Your task to perform on an android device: Search for logitech g910 on walmart, select the first entry, add it to the cart, then select checkout. Image 0: 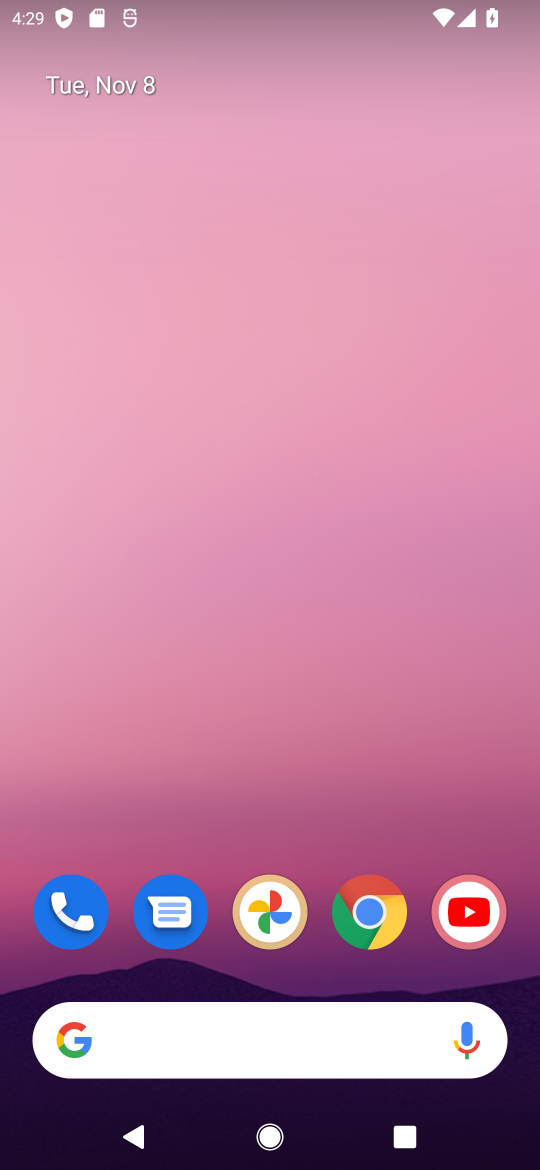
Step 0: click (362, 916)
Your task to perform on an android device: Search for logitech g910 on walmart, select the first entry, add it to the cart, then select checkout. Image 1: 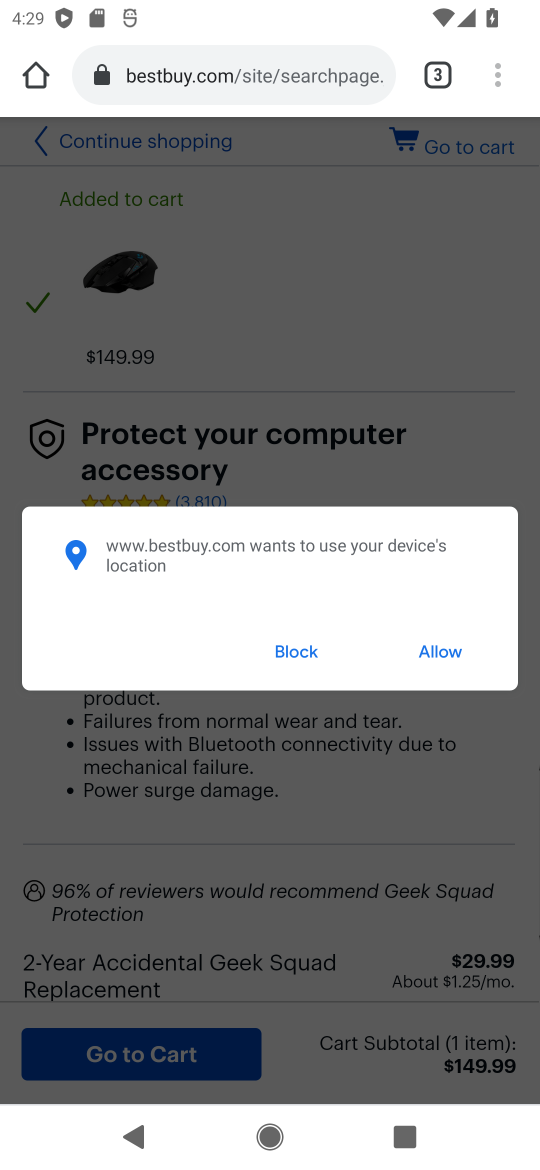
Step 1: click (286, 650)
Your task to perform on an android device: Search for logitech g910 on walmart, select the first entry, add it to the cart, then select checkout. Image 2: 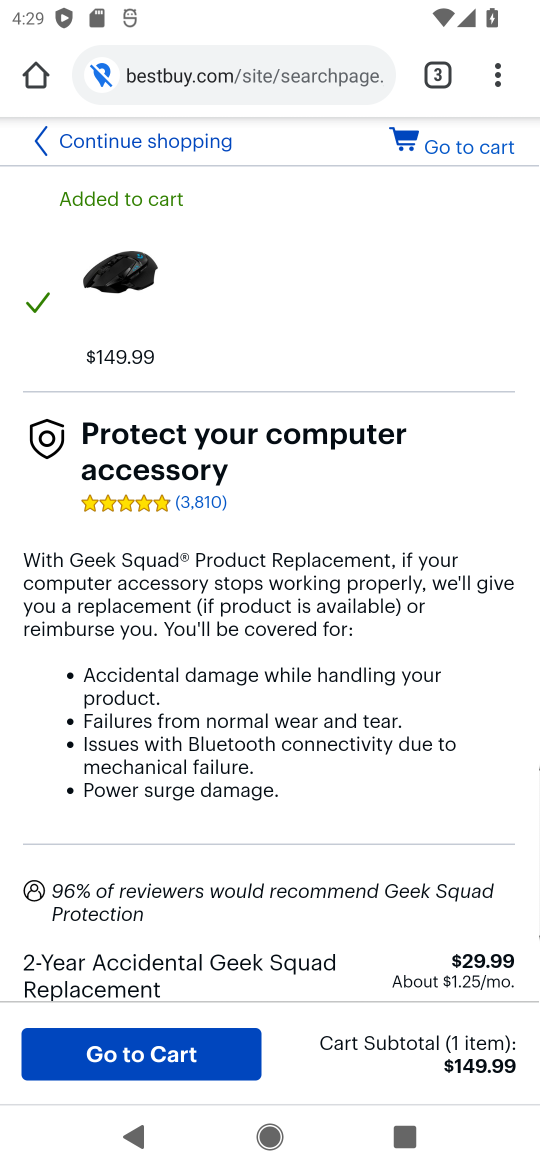
Step 2: click (433, 77)
Your task to perform on an android device: Search for logitech g910 on walmart, select the first entry, add it to the cart, then select checkout. Image 3: 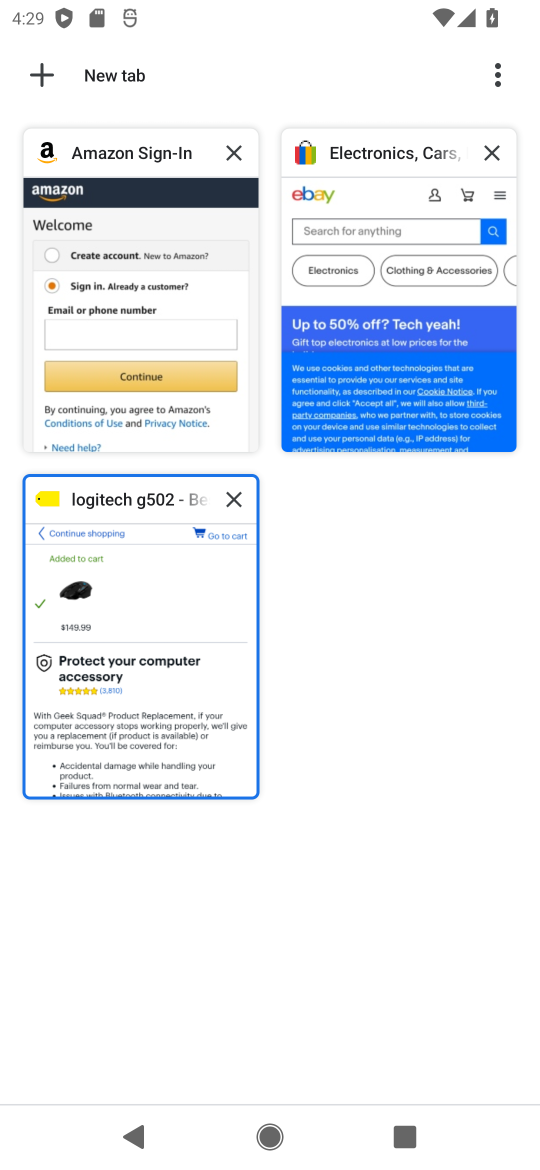
Step 3: click (49, 78)
Your task to perform on an android device: Search for logitech g910 on walmart, select the first entry, add it to the cart, then select checkout. Image 4: 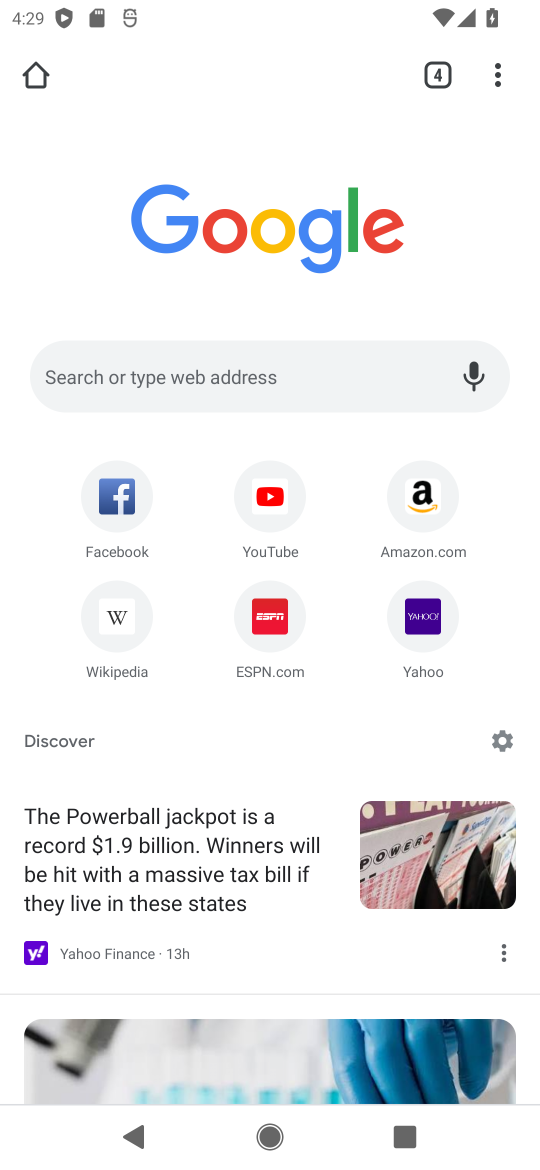
Step 4: click (202, 363)
Your task to perform on an android device: Search for logitech g910 on walmart, select the first entry, add it to the cart, then select checkout. Image 5: 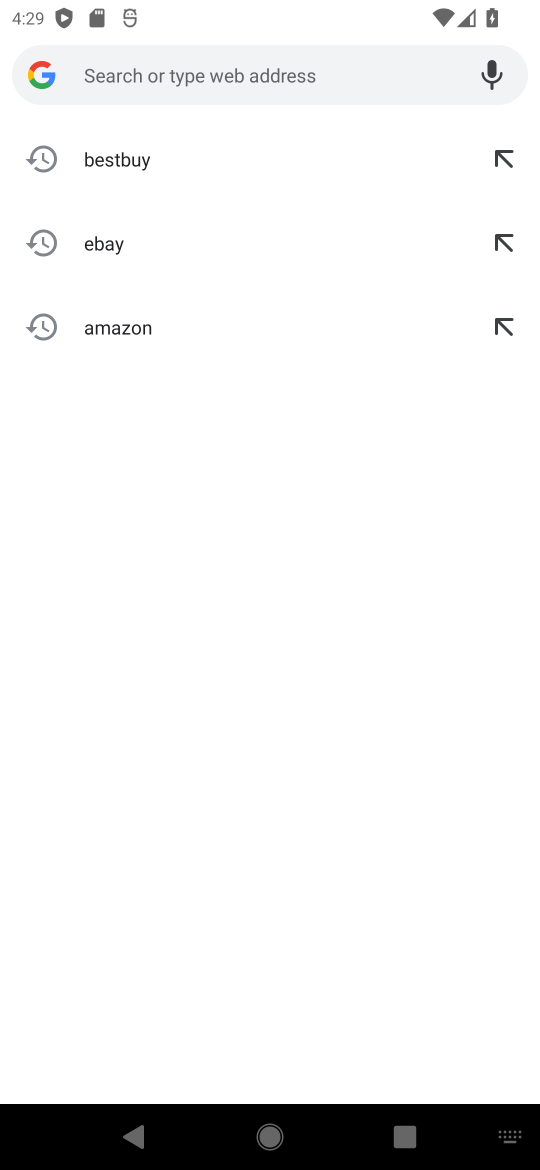
Step 5: type "walmart"
Your task to perform on an android device: Search for logitech g910 on walmart, select the first entry, add it to the cart, then select checkout. Image 6: 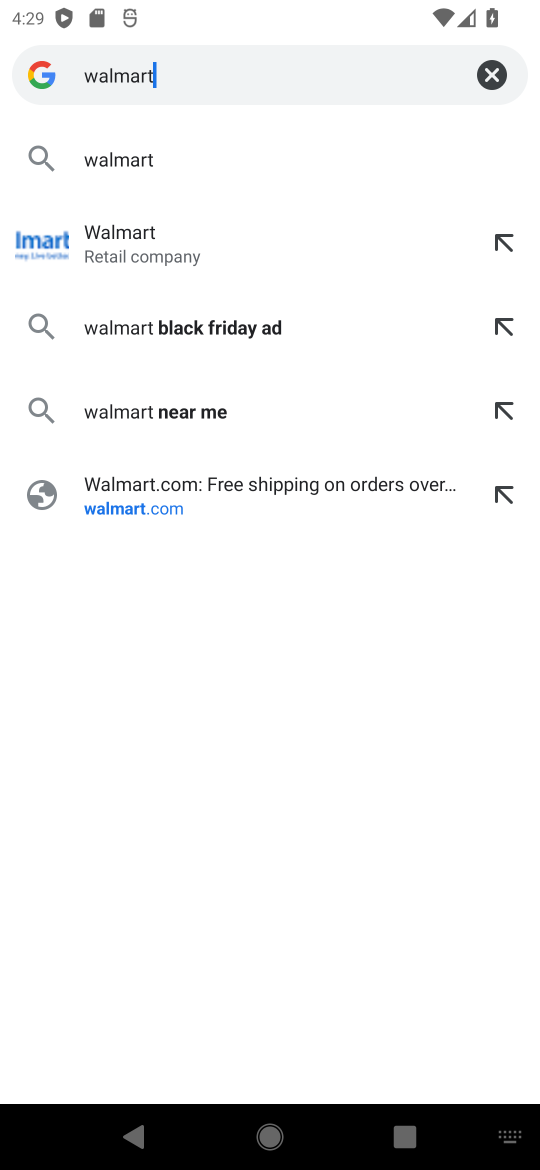
Step 6: click (171, 489)
Your task to perform on an android device: Search for logitech g910 on walmart, select the first entry, add it to the cart, then select checkout. Image 7: 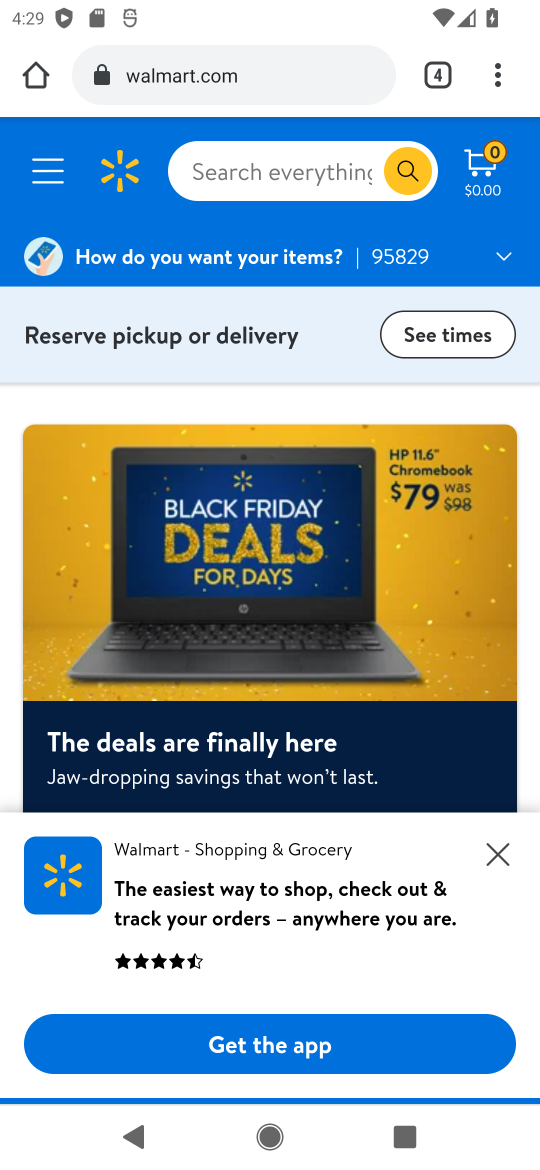
Step 7: click (234, 181)
Your task to perform on an android device: Search for logitech g910 on walmart, select the first entry, add it to the cart, then select checkout. Image 8: 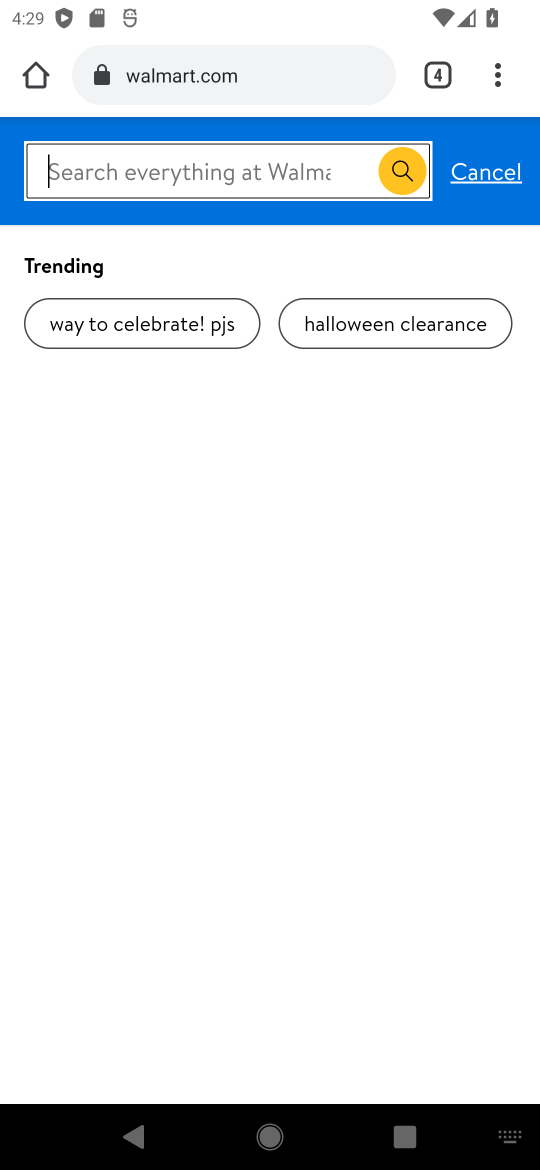
Step 8: type "logitech g910"
Your task to perform on an android device: Search for logitech g910 on walmart, select the first entry, add it to the cart, then select checkout. Image 9: 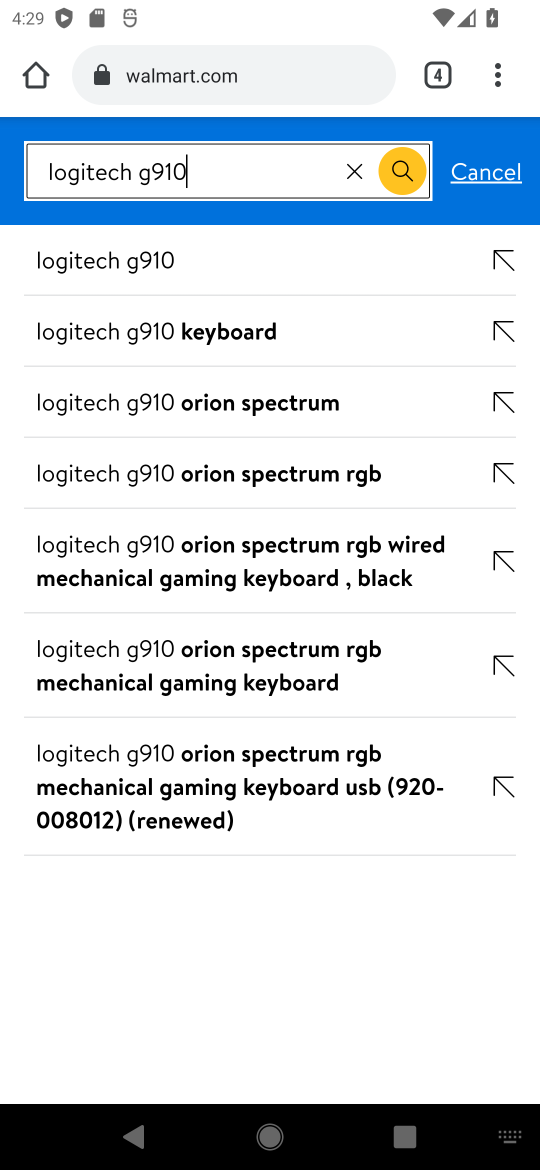
Step 9: click (49, 263)
Your task to perform on an android device: Search for logitech g910 on walmart, select the first entry, add it to the cart, then select checkout. Image 10: 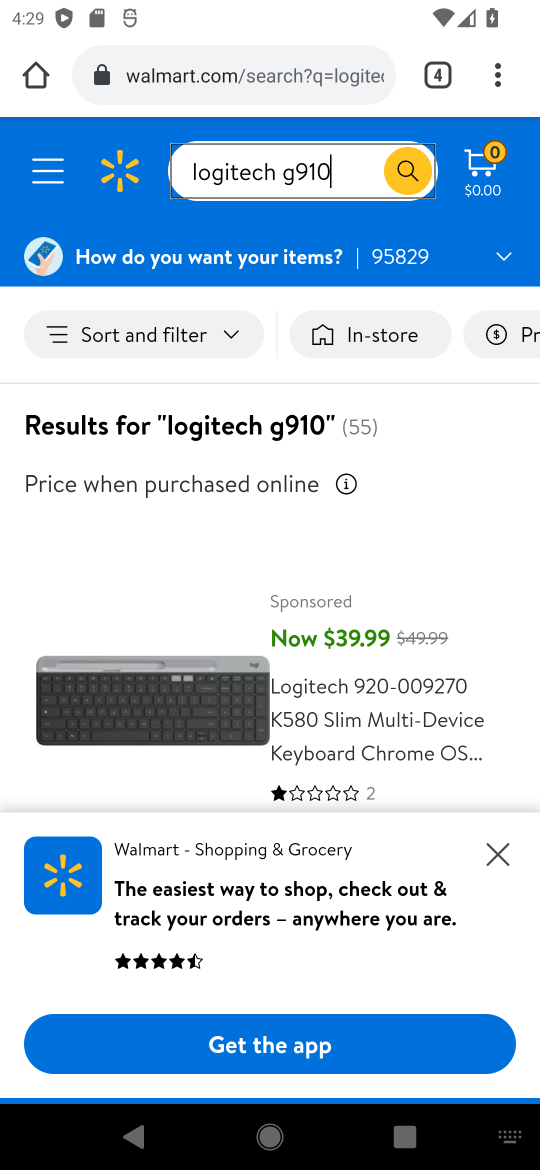
Step 10: click (493, 854)
Your task to perform on an android device: Search for logitech g910 on walmart, select the first entry, add it to the cart, then select checkout. Image 11: 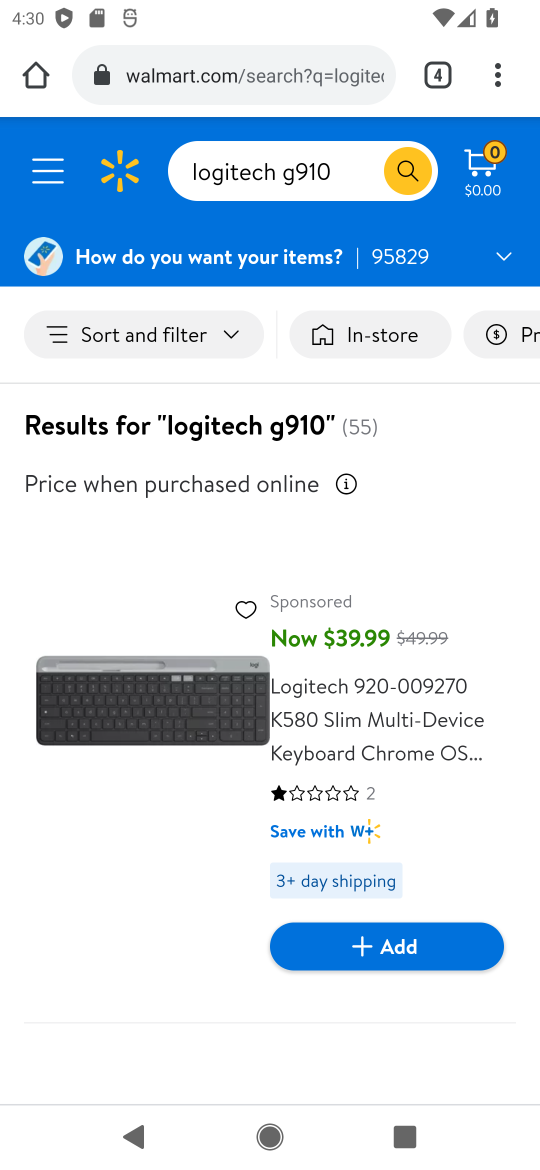
Step 11: click (379, 940)
Your task to perform on an android device: Search for logitech g910 on walmart, select the first entry, add it to the cart, then select checkout. Image 12: 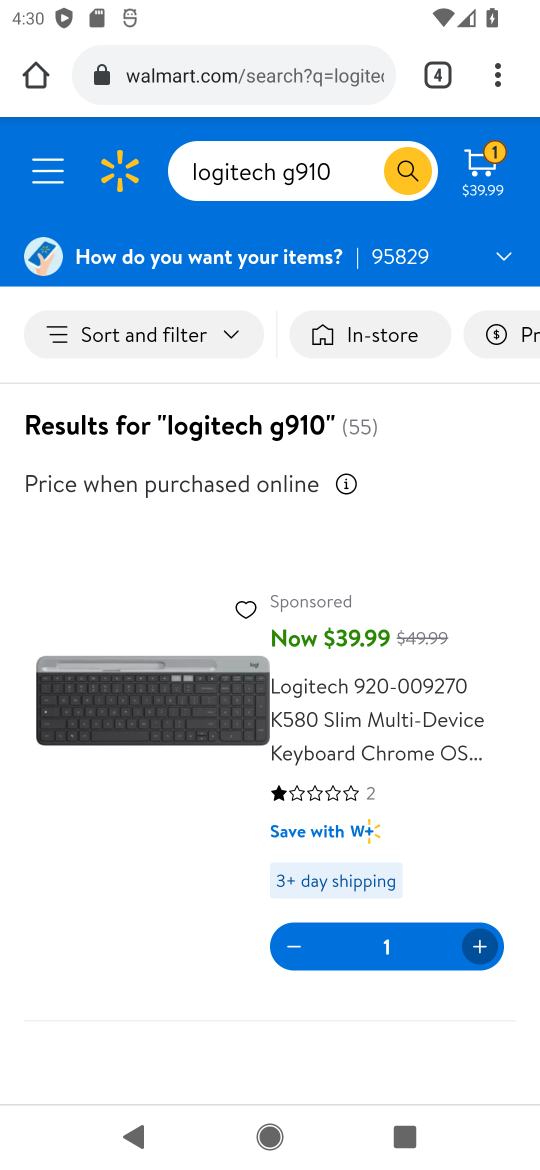
Step 12: click (475, 180)
Your task to perform on an android device: Search for logitech g910 on walmart, select the first entry, add it to the cart, then select checkout. Image 13: 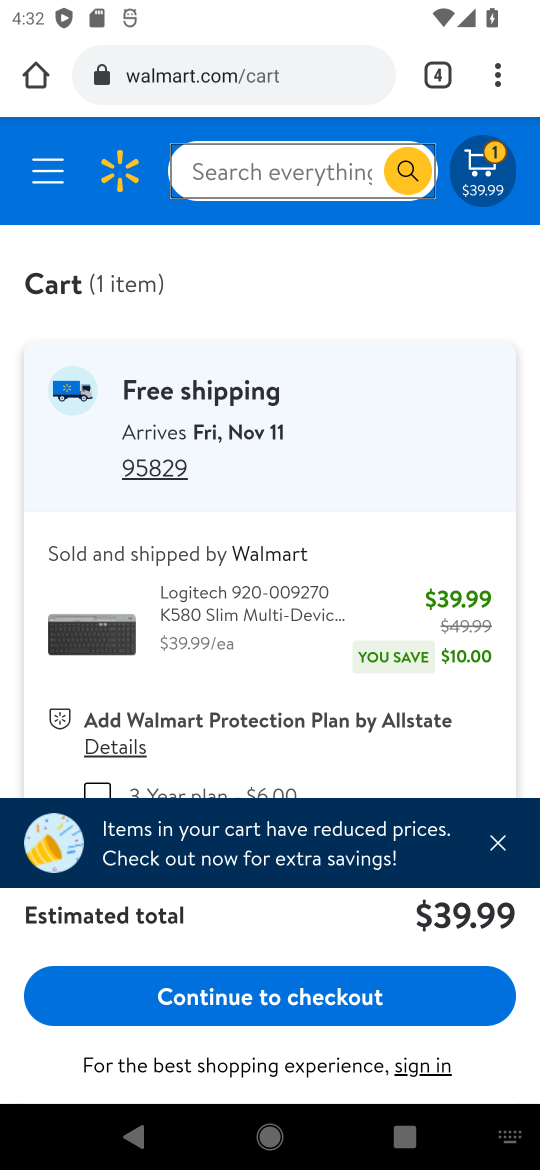
Step 13: click (259, 995)
Your task to perform on an android device: Search for logitech g910 on walmart, select the first entry, add it to the cart, then select checkout. Image 14: 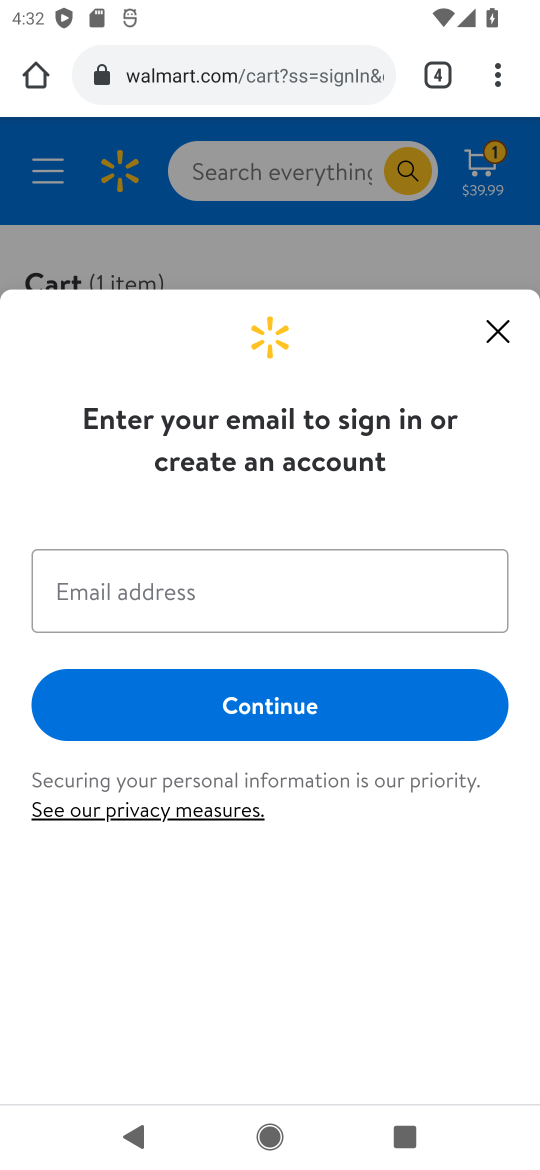
Step 14: task complete